Your task to perform on an android device: turn off notifications settings in the gmail app Image 0: 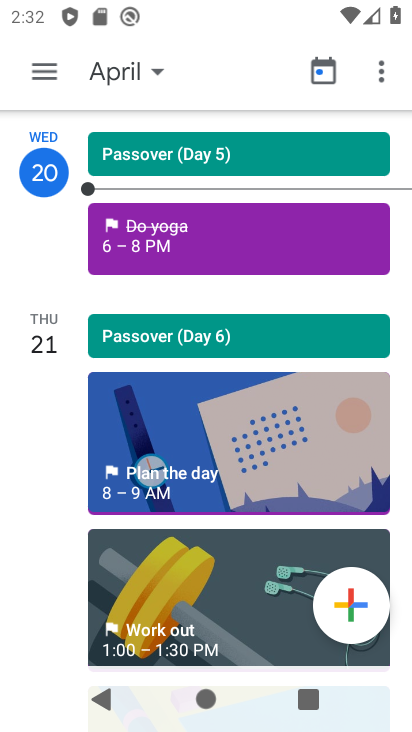
Step 0: press home button
Your task to perform on an android device: turn off notifications settings in the gmail app Image 1: 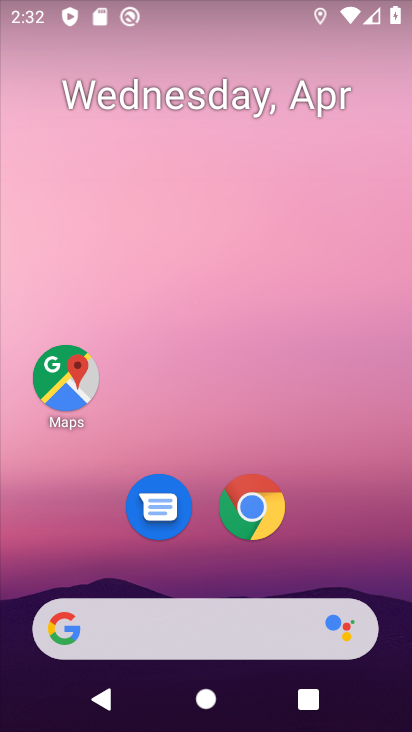
Step 1: drag from (332, 503) to (100, 123)
Your task to perform on an android device: turn off notifications settings in the gmail app Image 2: 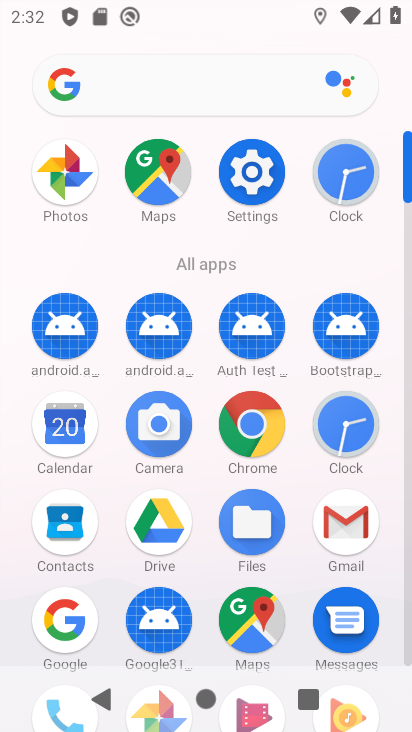
Step 2: click (345, 516)
Your task to perform on an android device: turn off notifications settings in the gmail app Image 3: 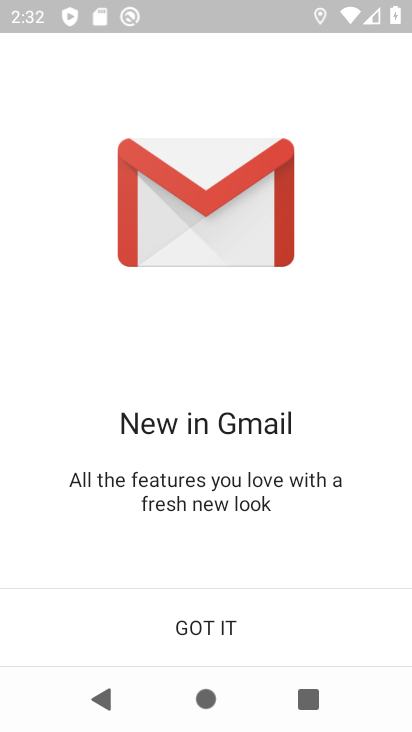
Step 3: click (196, 623)
Your task to perform on an android device: turn off notifications settings in the gmail app Image 4: 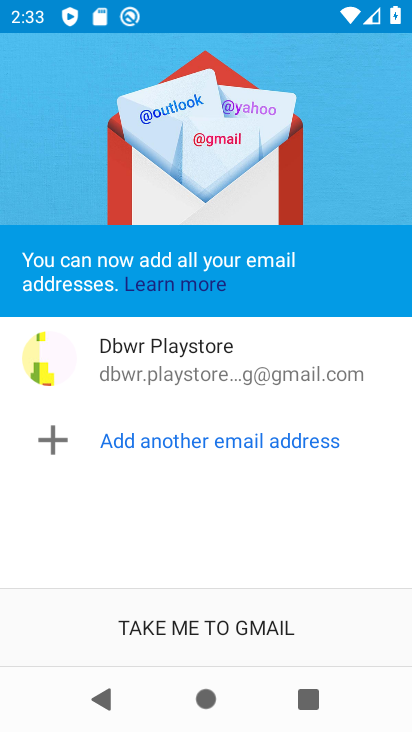
Step 4: click (224, 629)
Your task to perform on an android device: turn off notifications settings in the gmail app Image 5: 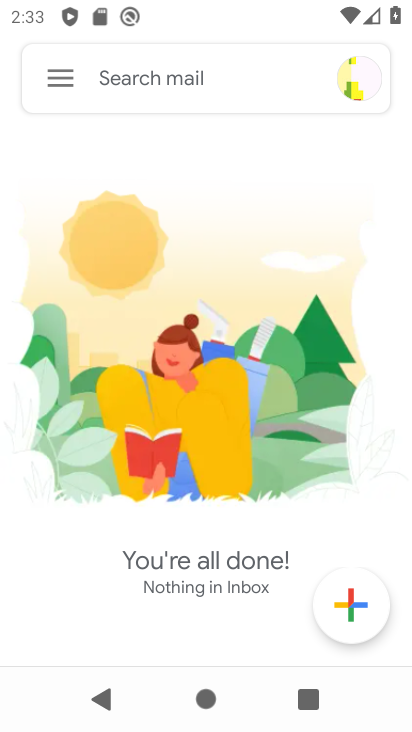
Step 5: click (59, 76)
Your task to perform on an android device: turn off notifications settings in the gmail app Image 6: 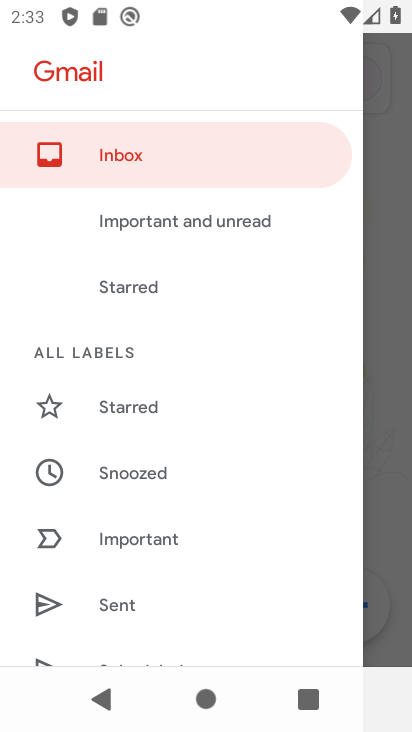
Step 6: drag from (124, 576) to (111, 101)
Your task to perform on an android device: turn off notifications settings in the gmail app Image 7: 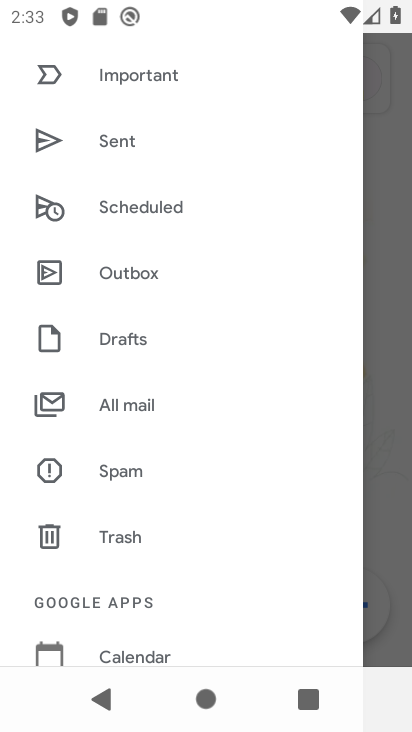
Step 7: drag from (137, 616) to (102, 221)
Your task to perform on an android device: turn off notifications settings in the gmail app Image 8: 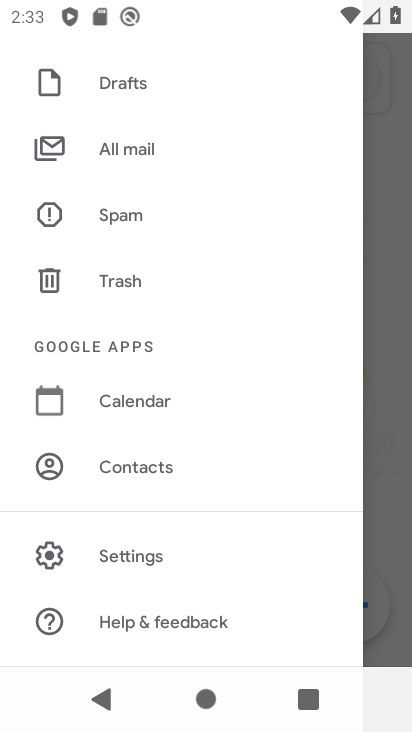
Step 8: click (121, 542)
Your task to perform on an android device: turn off notifications settings in the gmail app Image 9: 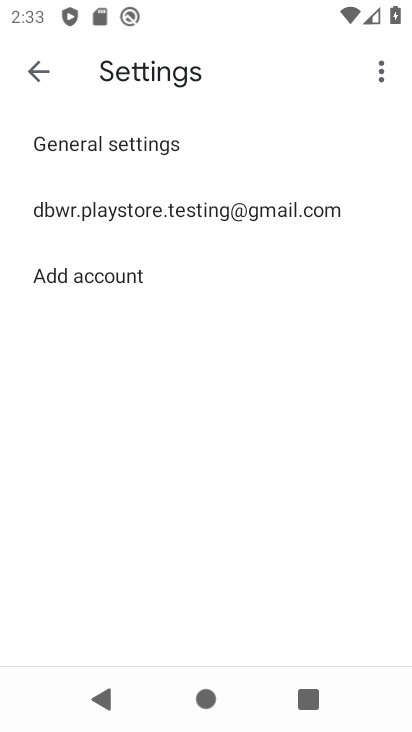
Step 9: click (173, 208)
Your task to perform on an android device: turn off notifications settings in the gmail app Image 10: 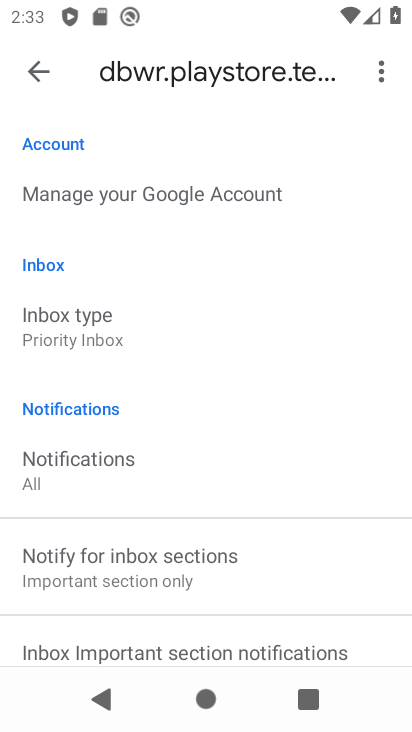
Step 10: drag from (88, 612) to (92, 375)
Your task to perform on an android device: turn off notifications settings in the gmail app Image 11: 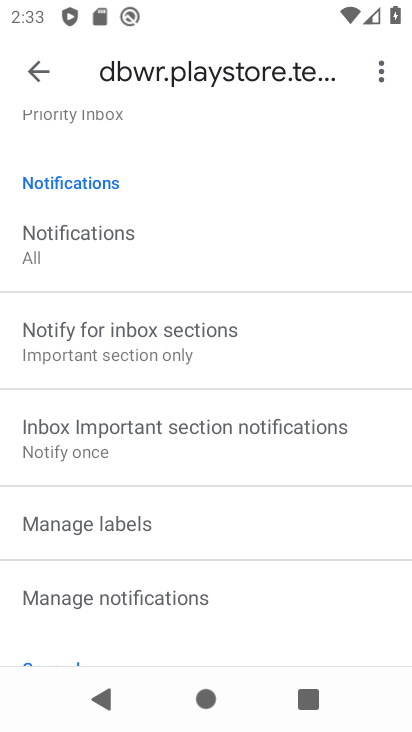
Step 11: click (63, 595)
Your task to perform on an android device: turn off notifications settings in the gmail app Image 12: 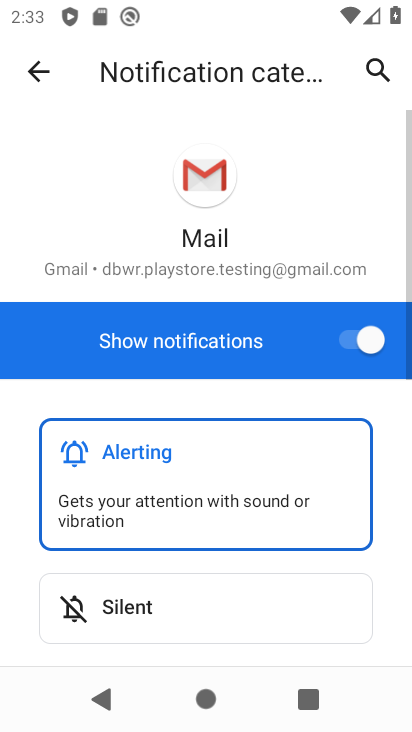
Step 12: drag from (68, 604) to (39, 258)
Your task to perform on an android device: turn off notifications settings in the gmail app Image 13: 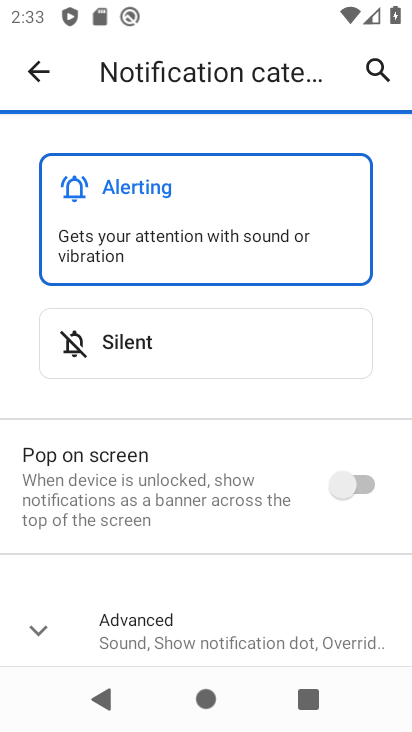
Step 13: drag from (206, 369) to (146, 674)
Your task to perform on an android device: turn off notifications settings in the gmail app Image 14: 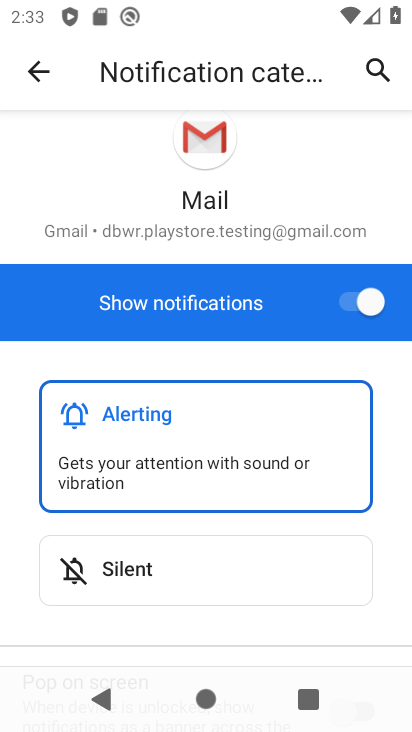
Step 14: click (372, 298)
Your task to perform on an android device: turn off notifications settings in the gmail app Image 15: 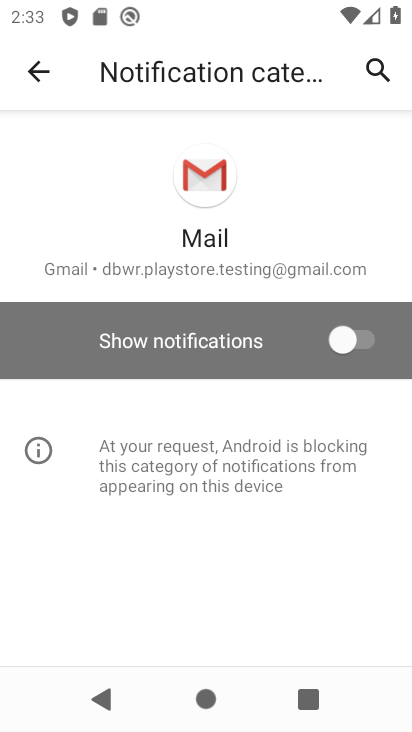
Step 15: task complete